Your task to perform on an android device: Open Google Chrome Image 0: 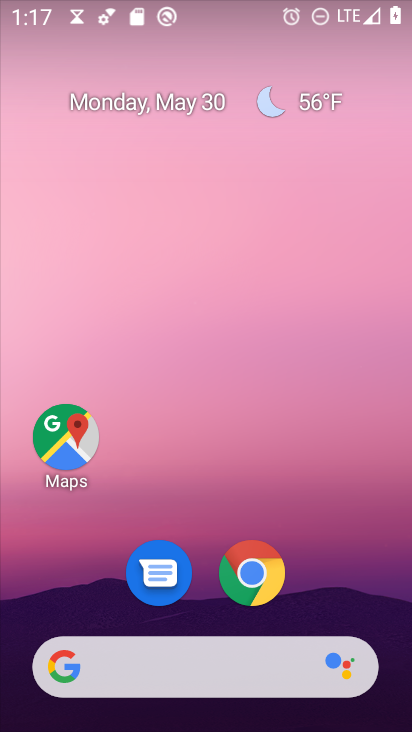
Step 0: drag from (272, 639) to (283, 47)
Your task to perform on an android device: Open Google Chrome Image 1: 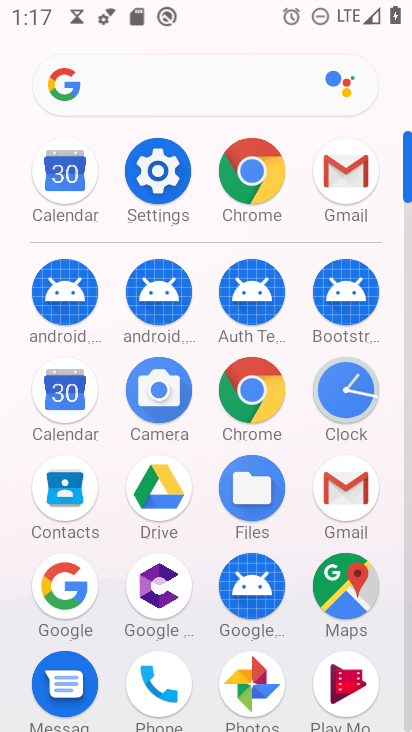
Step 1: click (246, 187)
Your task to perform on an android device: Open Google Chrome Image 2: 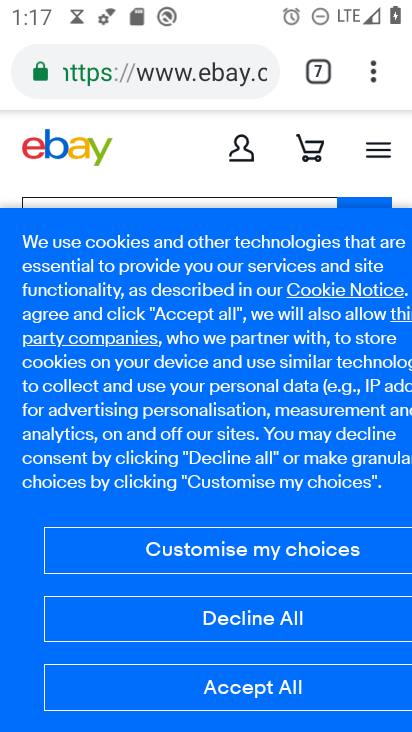
Step 2: task complete